Your task to perform on an android device: see sites visited before in the chrome app Image 0: 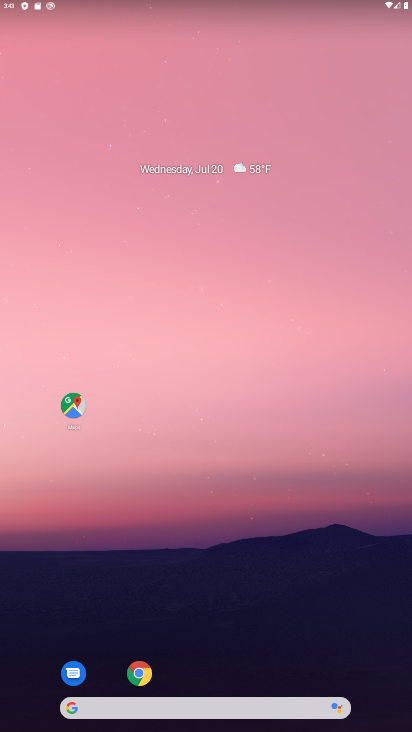
Step 0: click (141, 678)
Your task to perform on an android device: see sites visited before in the chrome app Image 1: 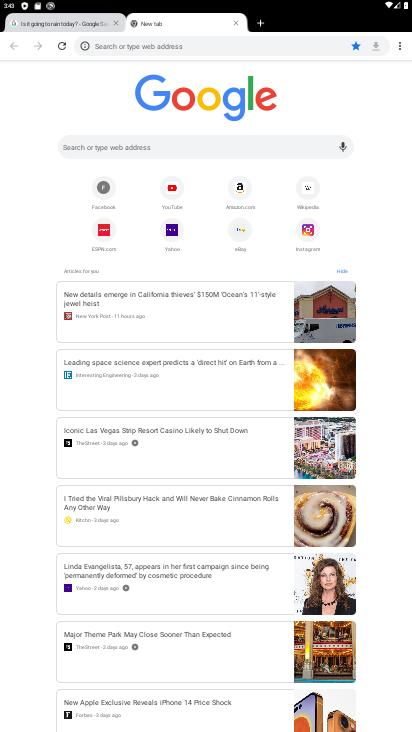
Step 1: click (399, 50)
Your task to perform on an android device: see sites visited before in the chrome app Image 2: 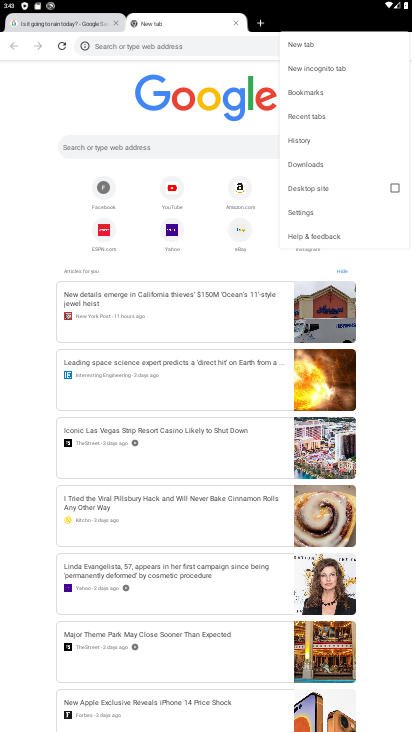
Step 2: click (342, 139)
Your task to perform on an android device: see sites visited before in the chrome app Image 3: 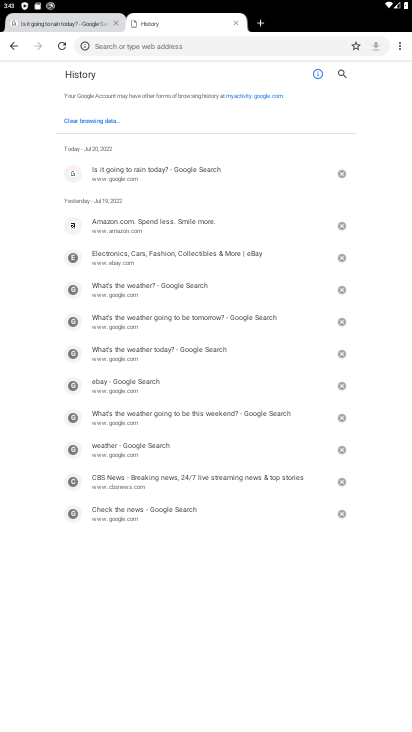
Step 3: task complete